Your task to perform on an android device: Go to Yahoo.com Image 0: 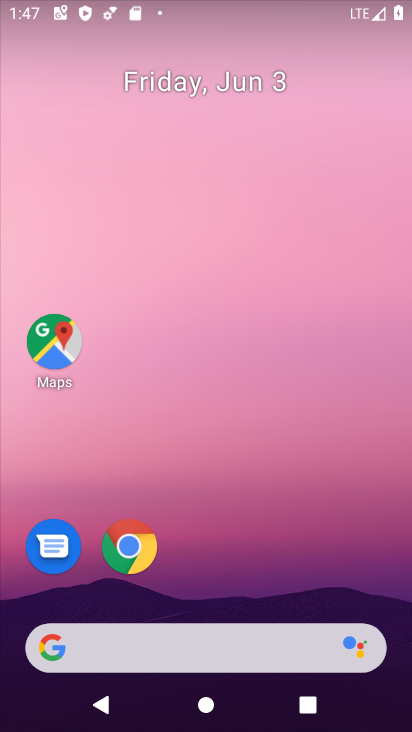
Step 0: click (149, 561)
Your task to perform on an android device: Go to Yahoo.com Image 1: 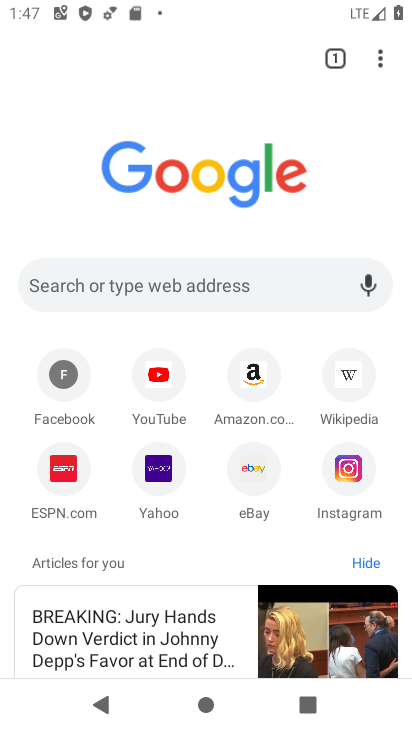
Step 1: click (157, 486)
Your task to perform on an android device: Go to Yahoo.com Image 2: 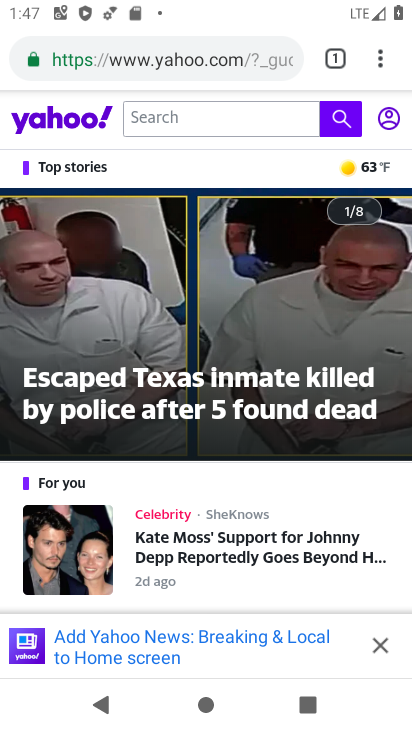
Step 2: task complete